Your task to perform on an android device: Install the Facebook app Image 0: 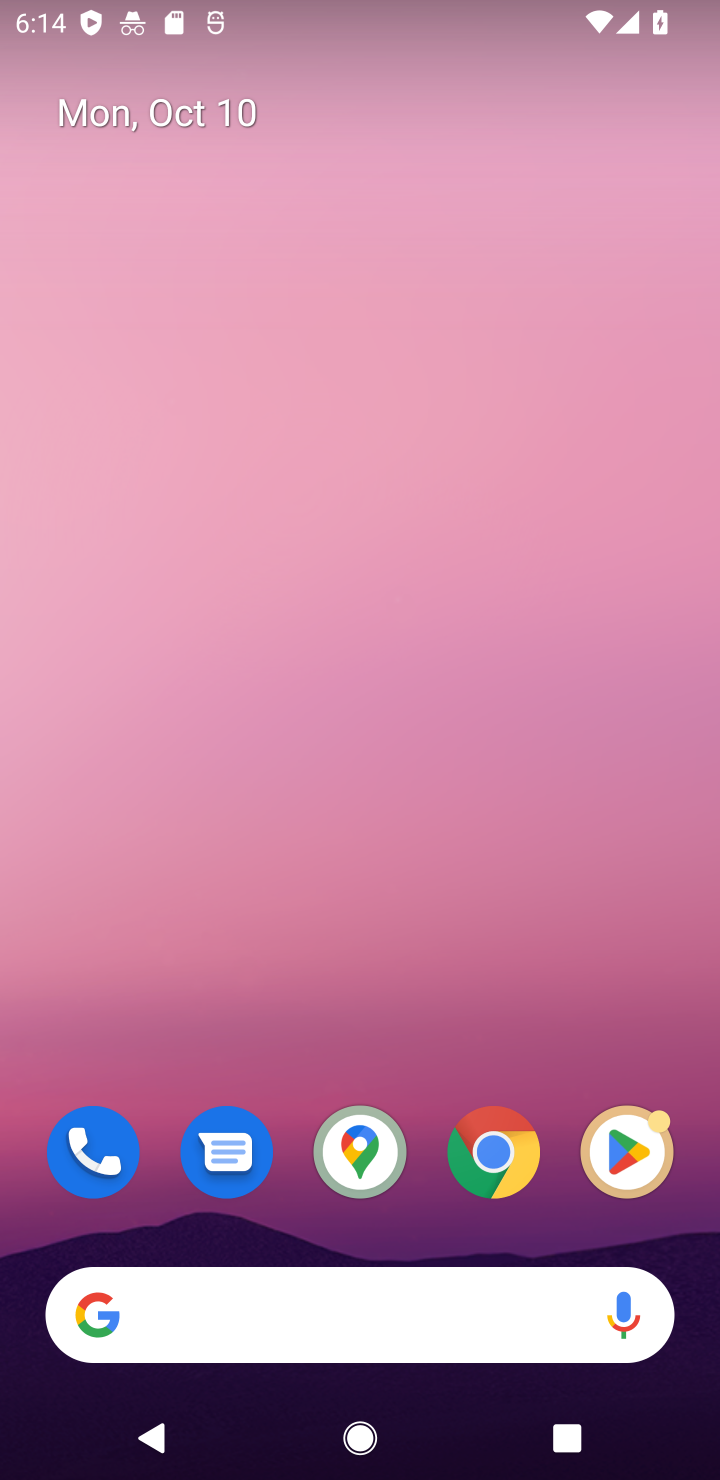
Step 0: click (627, 1145)
Your task to perform on an android device: Install the Facebook app Image 1: 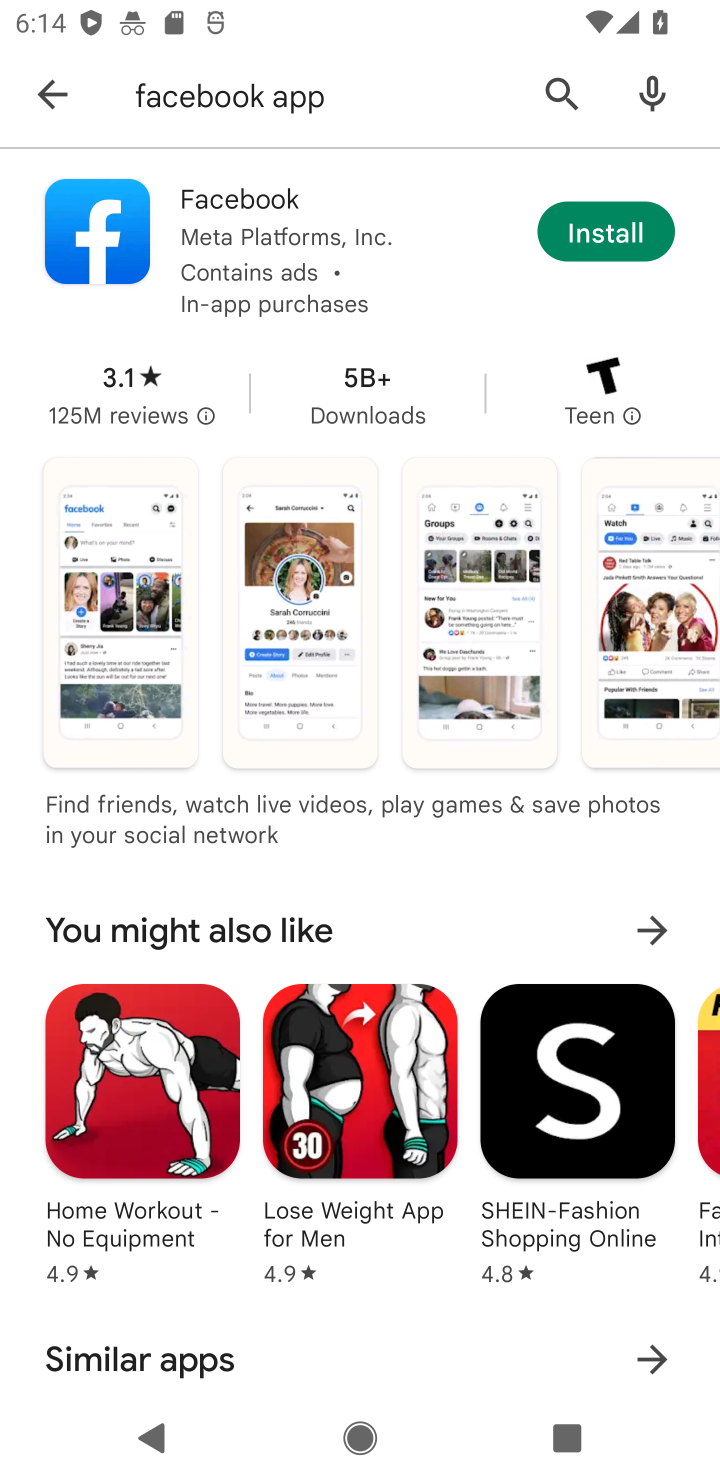
Step 1: click (557, 241)
Your task to perform on an android device: Install the Facebook app Image 2: 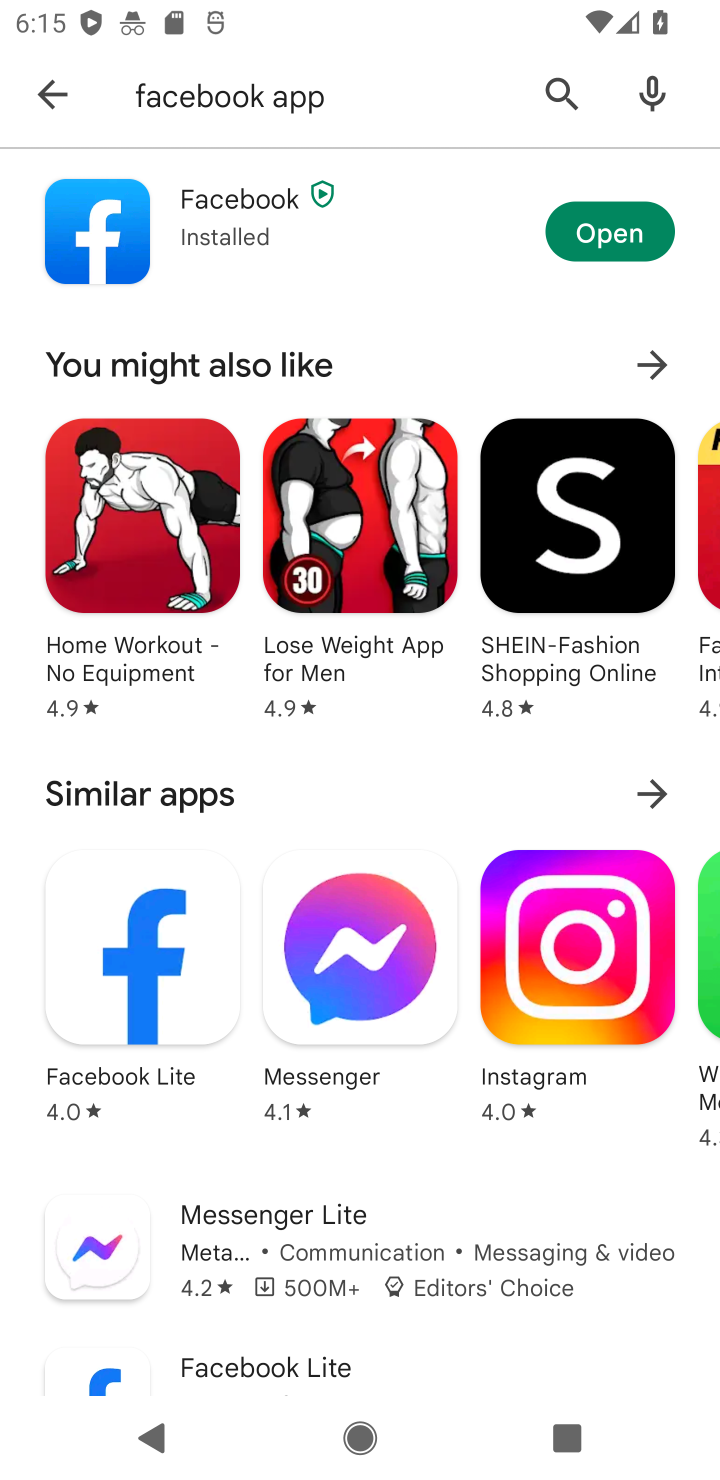
Step 2: task complete